Your task to perform on an android device: Go to privacy settings Image 0: 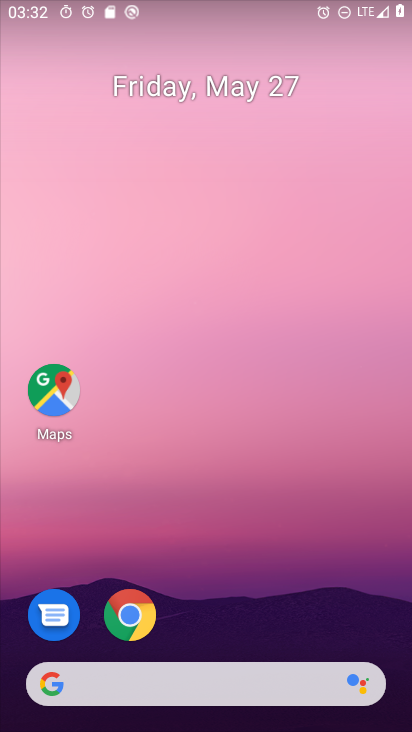
Step 0: drag from (351, 624) to (363, 261)
Your task to perform on an android device: Go to privacy settings Image 1: 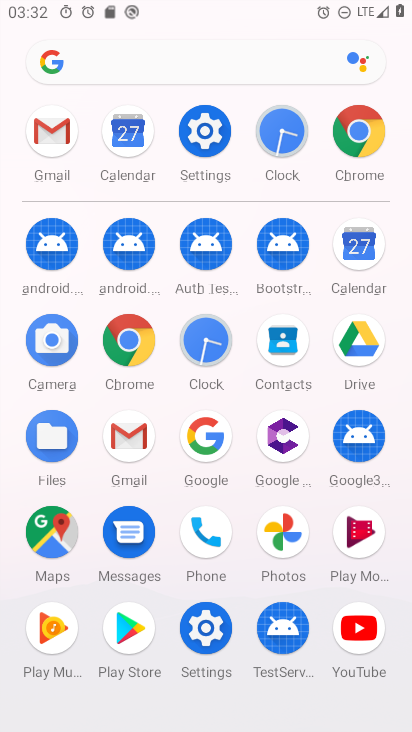
Step 1: click (212, 646)
Your task to perform on an android device: Go to privacy settings Image 2: 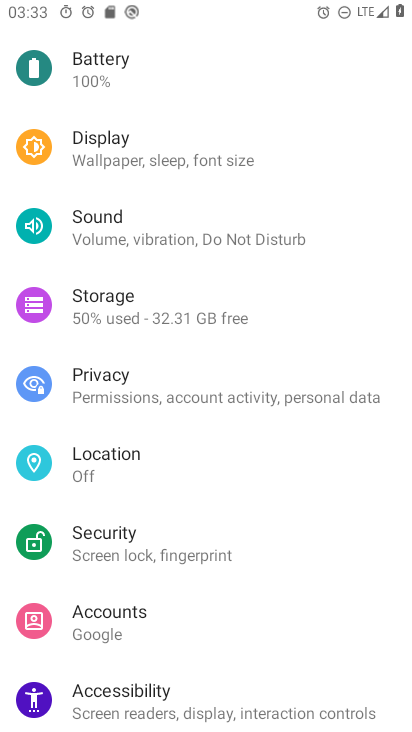
Step 2: drag from (282, 562) to (283, 474)
Your task to perform on an android device: Go to privacy settings Image 3: 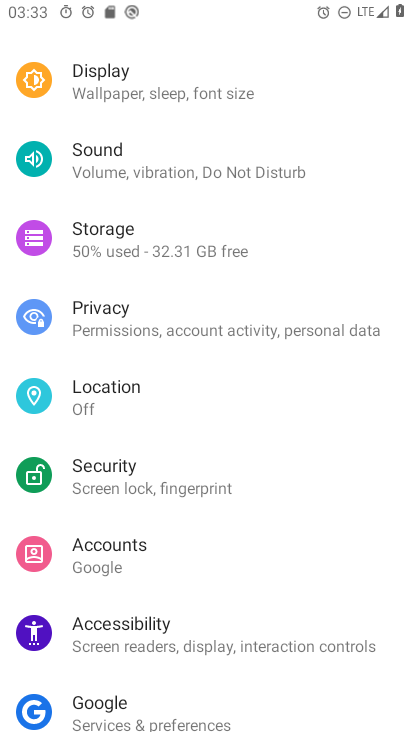
Step 3: drag from (276, 631) to (278, 536)
Your task to perform on an android device: Go to privacy settings Image 4: 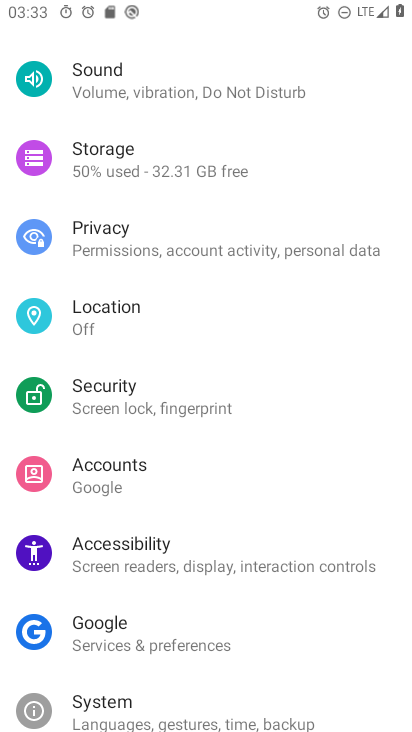
Step 4: drag from (286, 668) to (291, 551)
Your task to perform on an android device: Go to privacy settings Image 5: 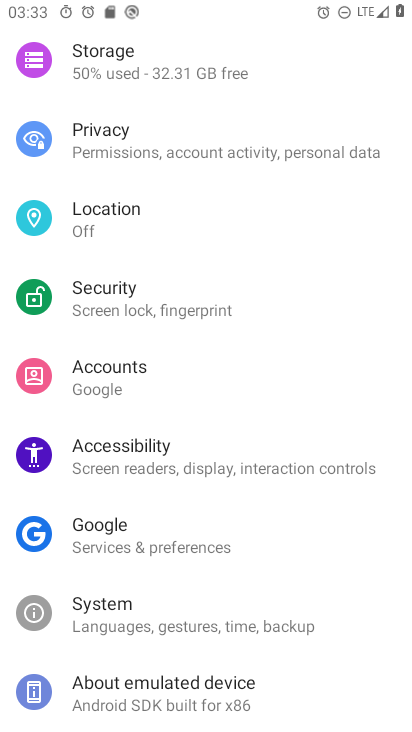
Step 5: drag from (284, 680) to (282, 532)
Your task to perform on an android device: Go to privacy settings Image 6: 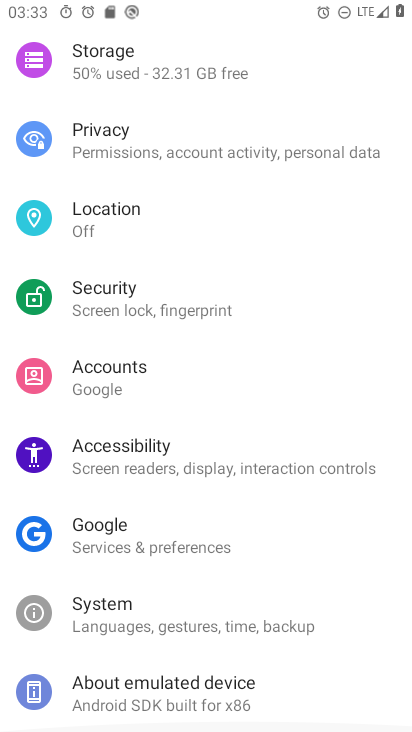
Step 6: drag from (282, 494) to (287, 621)
Your task to perform on an android device: Go to privacy settings Image 7: 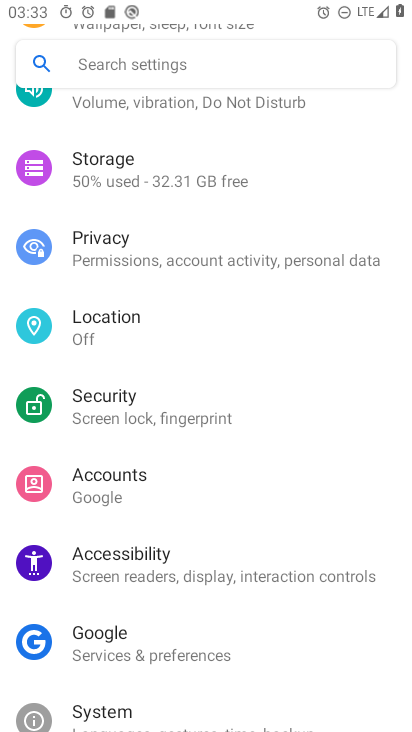
Step 7: drag from (277, 511) to (278, 596)
Your task to perform on an android device: Go to privacy settings Image 8: 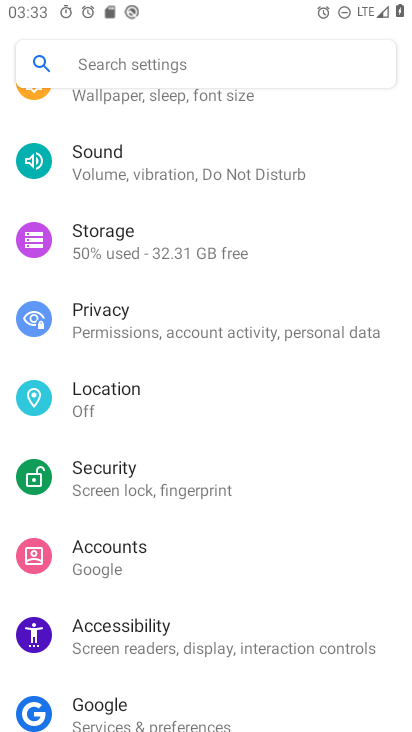
Step 8: drag from (270, 515) to (270, 638)
Your task to perform on an android device: Go to privacy settings Image 9: 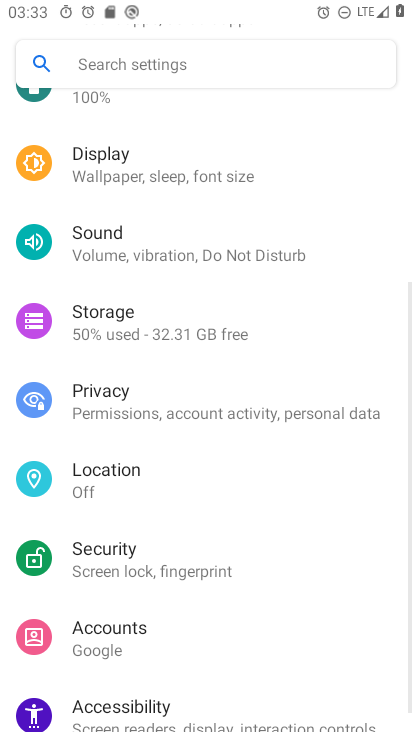
Step 9: drag from (255, 501) to (264, 640)
Your task to perform on an android device: Go to privacy settings Image 10: 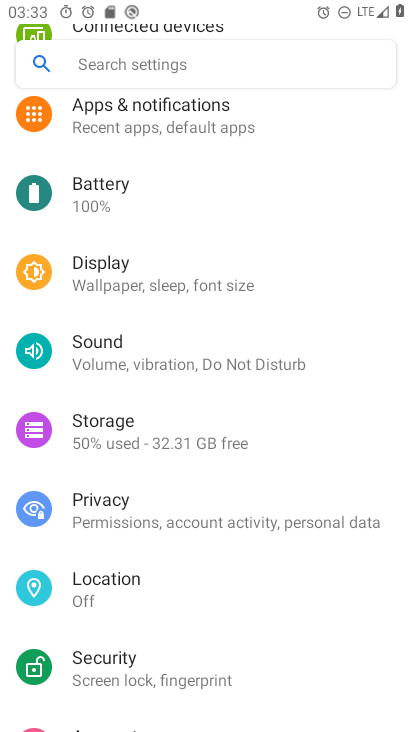
Step 10: drag from (264, 564) to (271, 658)
Your task to perform on an android device: Go to privacy settings Image 11: 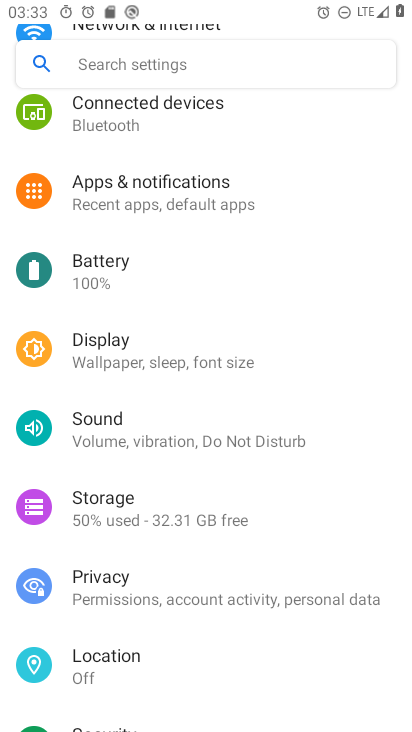
Step 11: click (271, 595)
Your task to perform on an android device: Go to privacy settings Image 12: 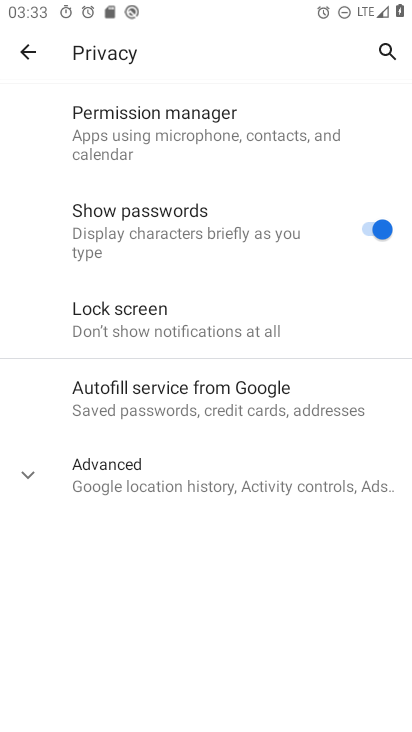
Step 12: task complete